Your task to perform on an android device: turn vacation reply on in the gmail app Image 0: 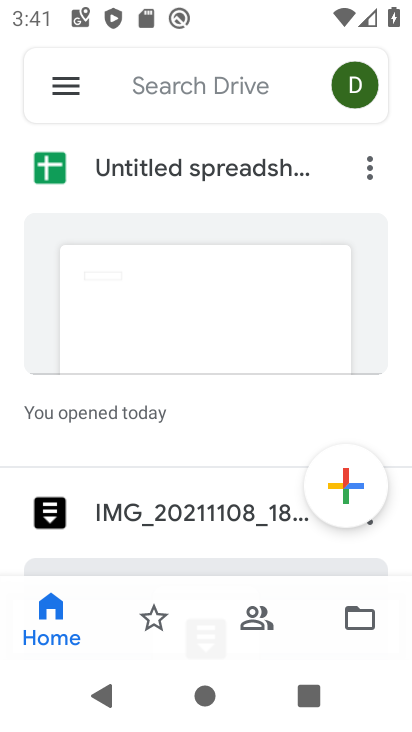
Step 0: press home button
Your task to perform on an android device: turn vacation reply on in the gmail app Image 1: 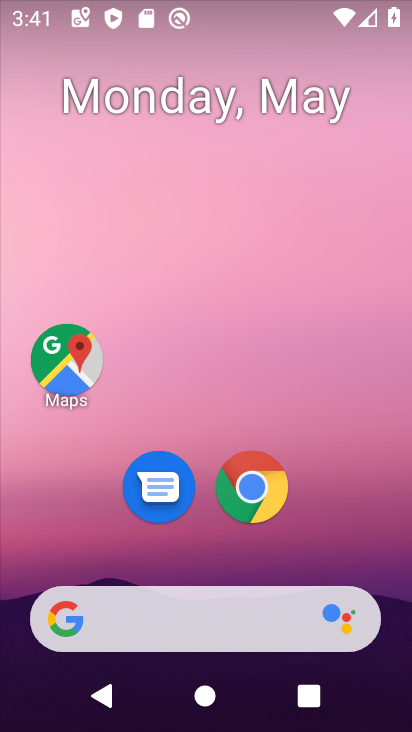
Step 1: drag from (154, 570) to (158, 256)
Your task to perform on an android device: turn vacation reply on in the gmail app Image 2: 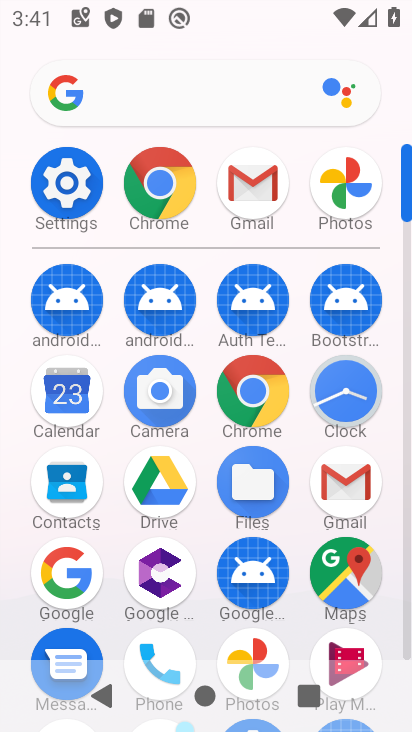
Step 2: click (354, 493)
Your task to perform on an android device: turn vacation reply on in the gmail app Image 3: 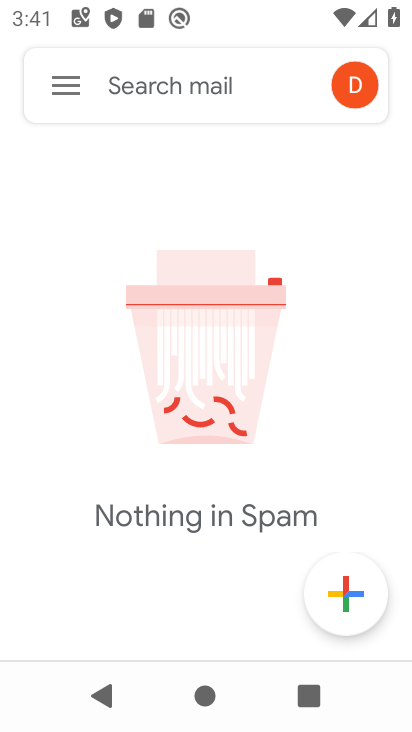
Step 3: click (65, 87)
Your task to perform on an android device: turn vacation reply on in the gmail app Image 4: 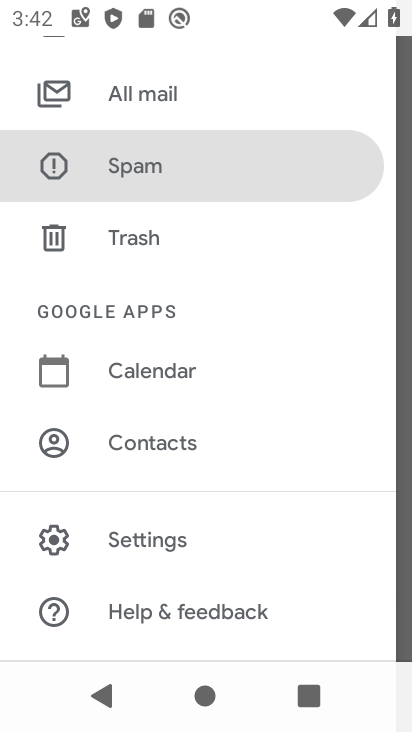
Step 4: click (159, 532)
Your task to perform on an android device: turn vacation reply on in the gmail app Image 5: 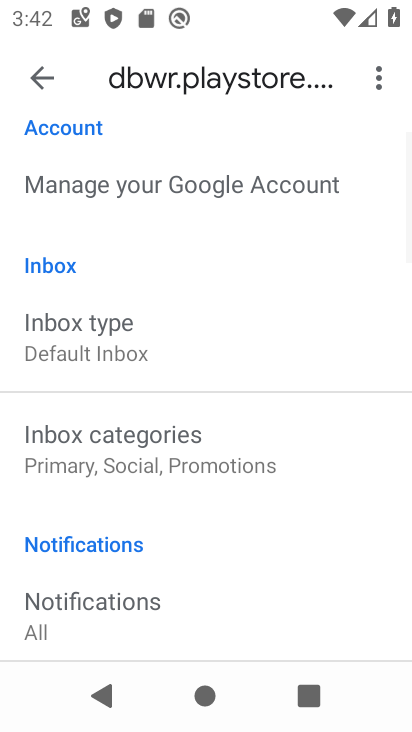
Step 5: drag from (159, 638) to (178, 209)
Your task to perform on an android device: turn vacation reply on in the gmail app Image 6: 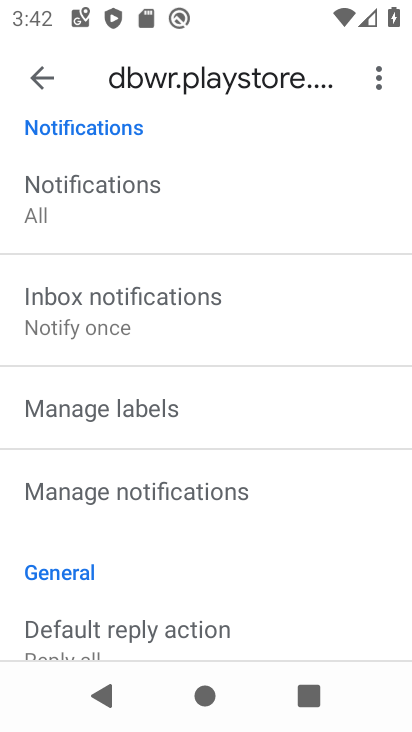
Step 6: drag from (172, 643) to (206, 270)
Your task to perform on an android device: turn vacation reply on in the gmail app Image 7: 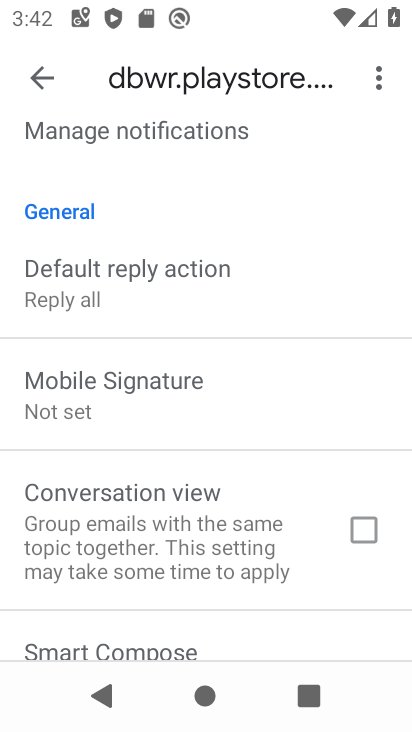
Step 7: drag from (207, 636) to (238, 248)
Your task to perform on an android device: turn vacation reply on in the gmail app Image 8: 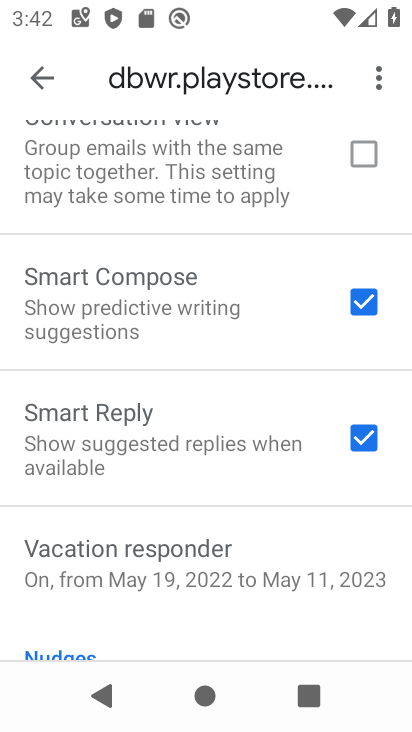
Step 8: click (218, 550)
Your task to perform on an android device: turn vacation reply on in the gmail app Image 9: 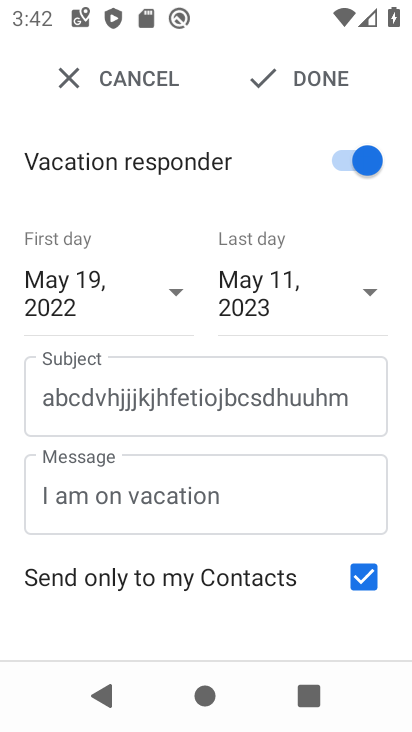
Step 9: click (298, 73)
Your task to perform on an android device: turn vacation reply on in the gmail app Image 10: 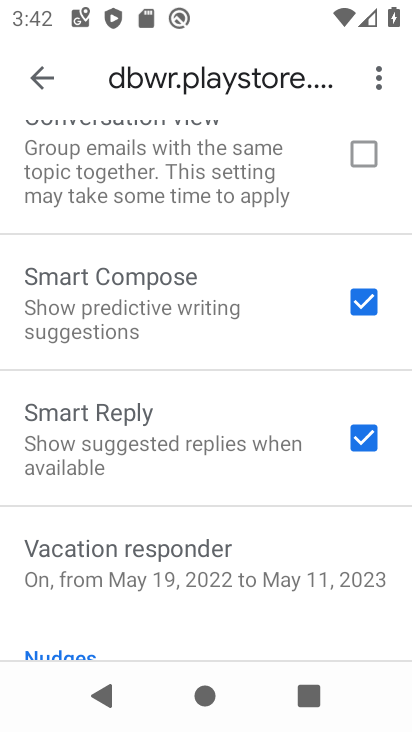
Step 10: task complete